Your task to perform on an android device: clear all cookies in the chrome app Image 0: 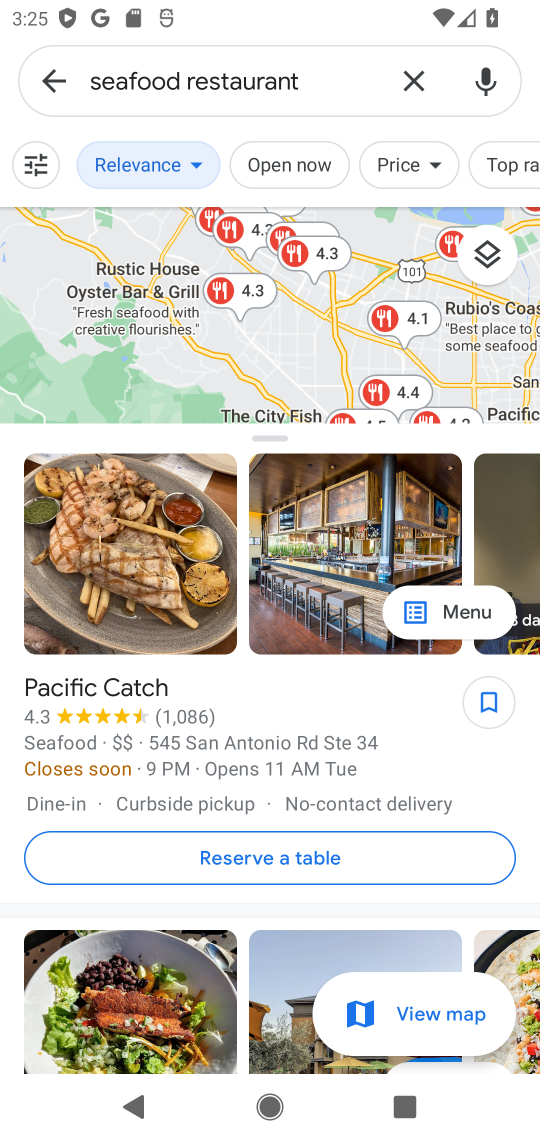
Step 0: press home button
Your task to perform on an android device: clear all cookies in the chrome app Image 1: 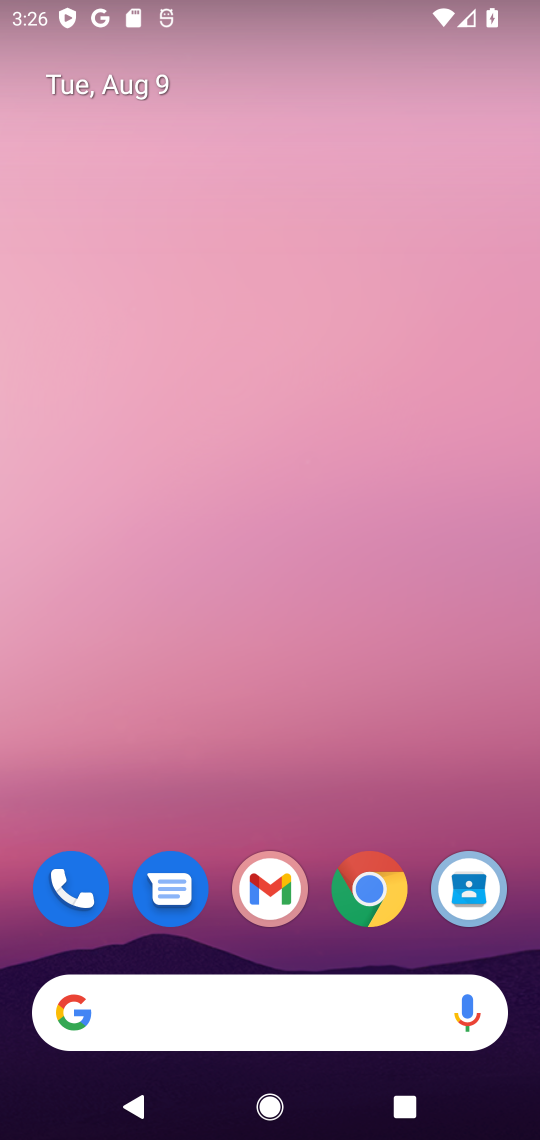
Step 1: click (373, 889)
Your task to perform on an android device: clear all cookies in the chrome app Image 2: 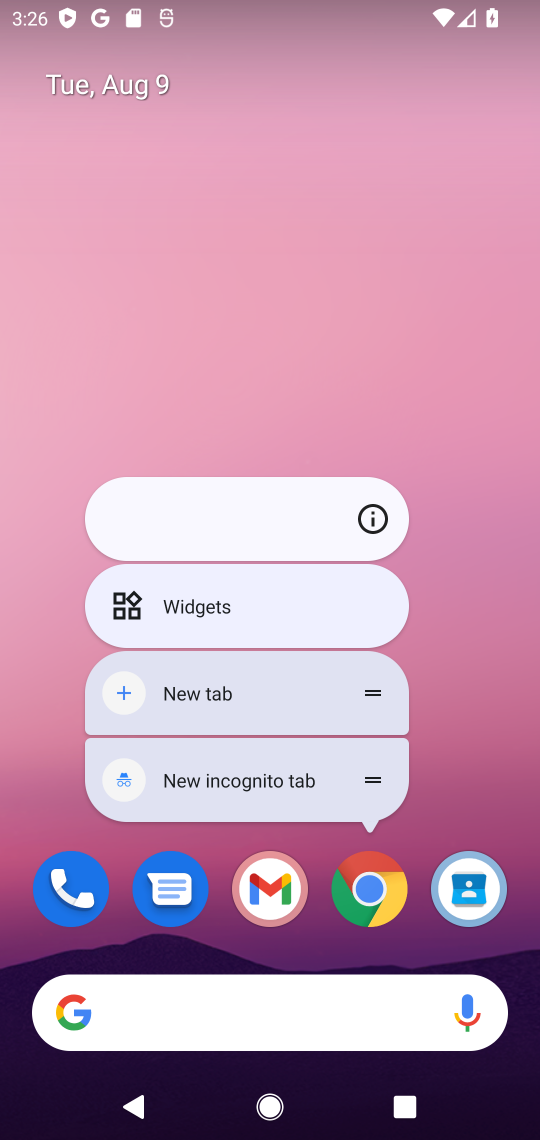
Step 2: click (373, 887)
Your task to perform on an android device: clear all cookies in the chrome app Image 3: 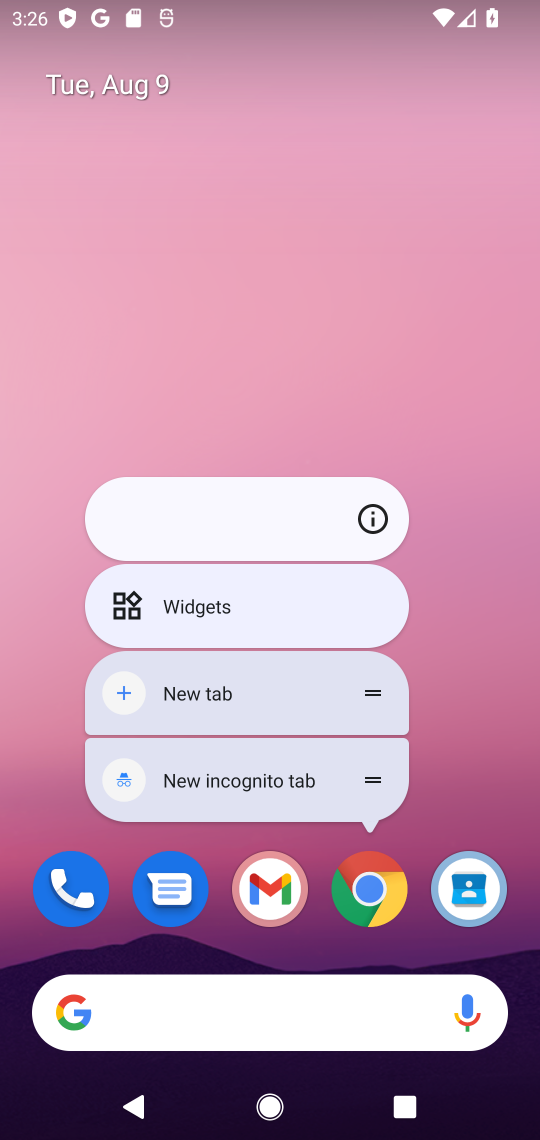
Step 3: click (373, 889)
Your task to perform on an android device: clear all cookies in the chrome app Image 4: 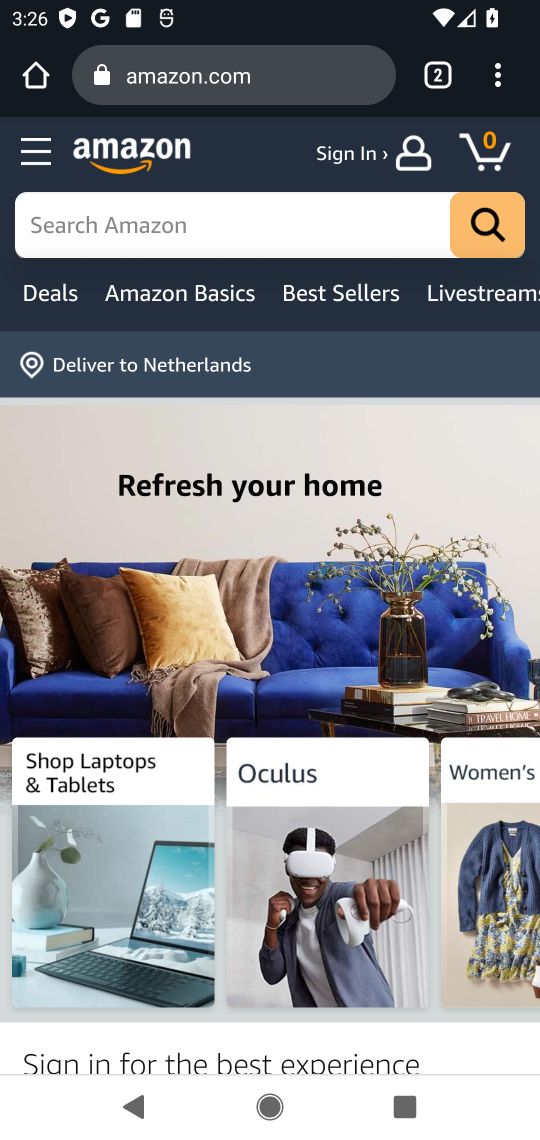
Step 4: click (501, 84)
Your task to perform on an android device: clear all cookies in the chrome app Image 5: 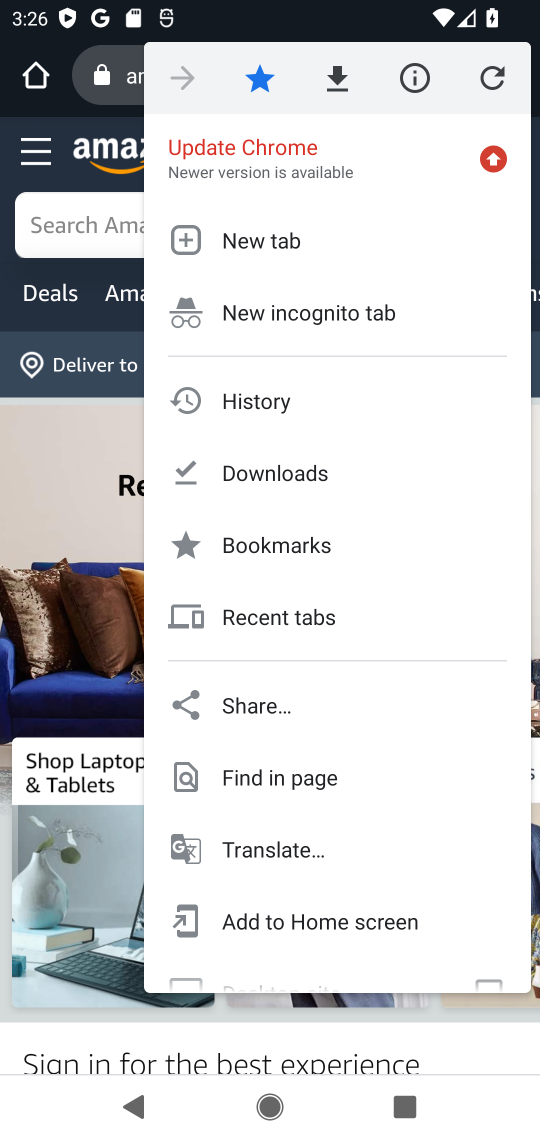
Step 5: drag from (374, 842) to (396, 39)
Your task to perform on an android device: clear all cookies in the chrome app Image 6: 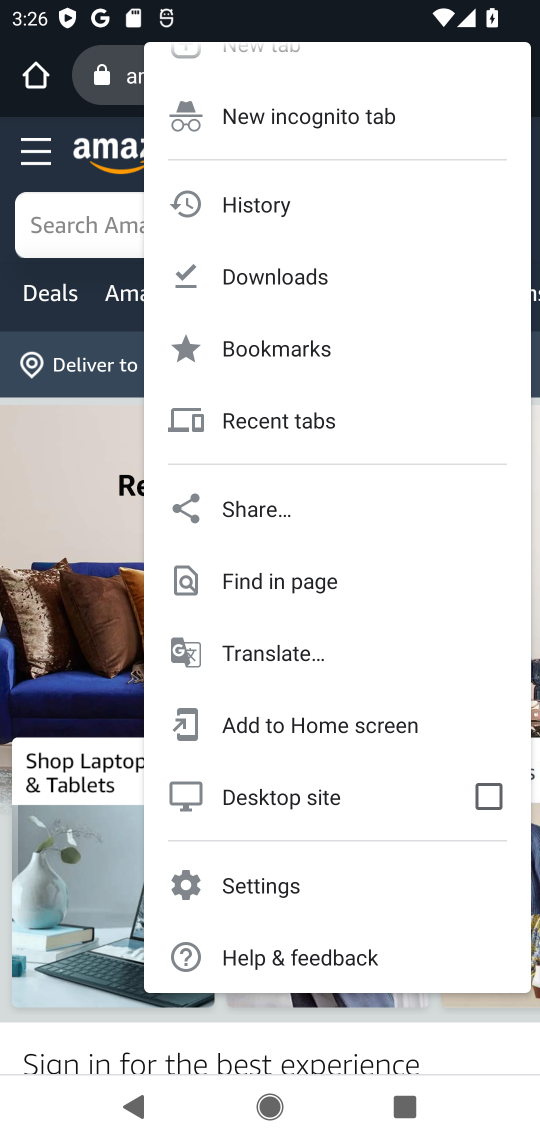
Step 6: click (287, 880)
Your task to perform on an android device: clear all cookies in the chrome app Image 7: 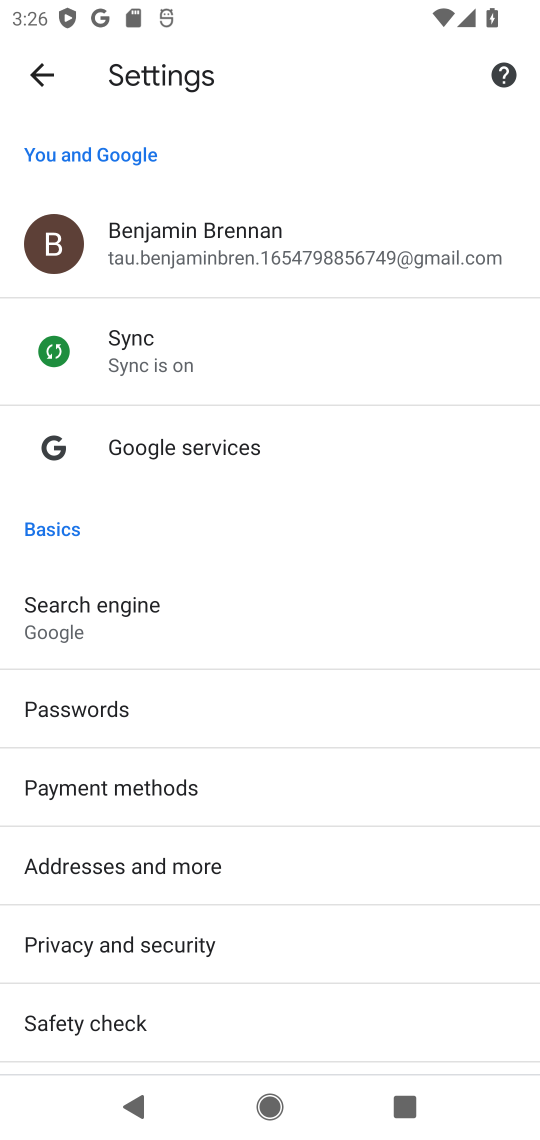
Step 7: click (224, 936)
Your task to perform on an android device: clear all cookies in the chrome app Image 8: 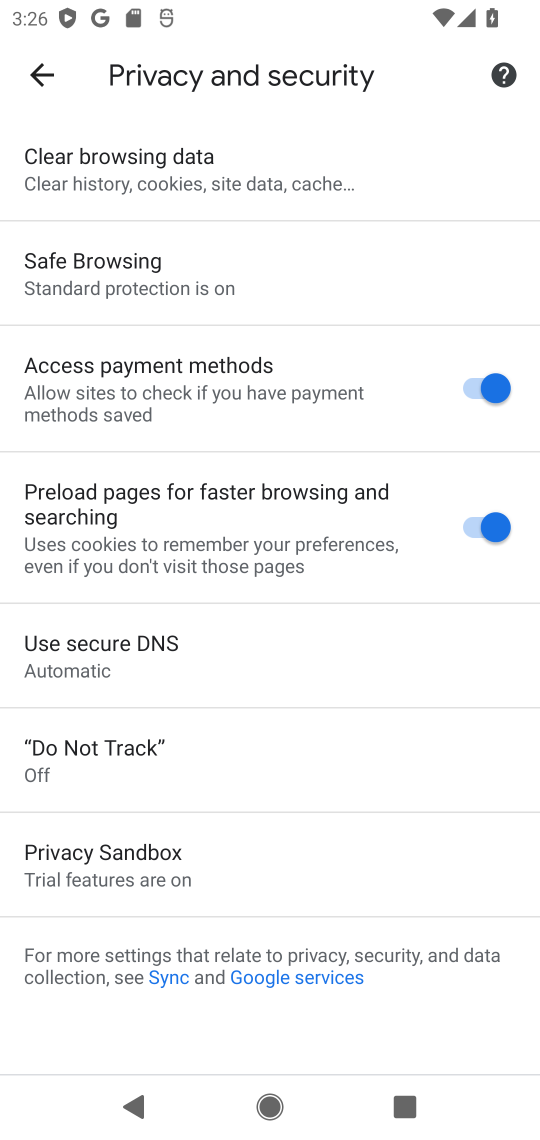
Step 8: click (254, 166)
Your task to perform on an android device: clear all cookies in the chrome app Image 9: 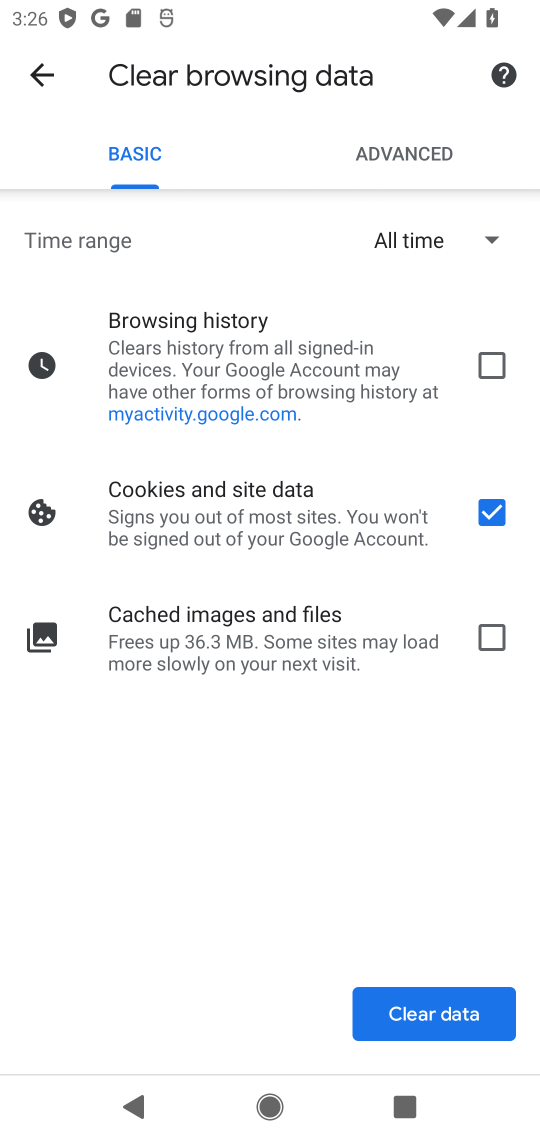
Step 9: click (479, 1016)
Your task to perform on an android device: clear all cookies in the chrome app Image 10: 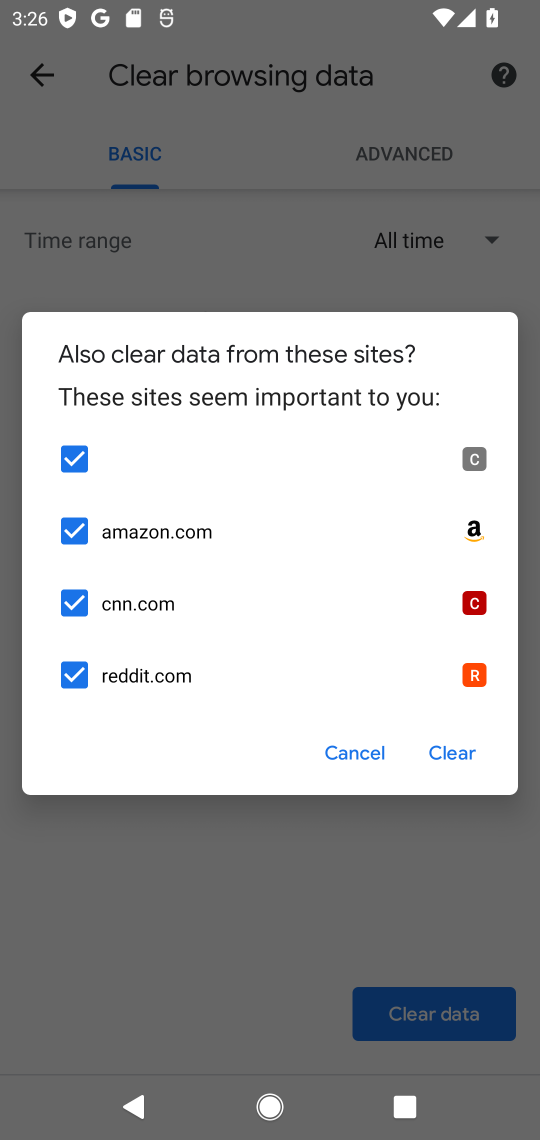
Step 10: click (469, 751)
Your task to perform on an android device: clear all cookies in the chrome app Image 11: 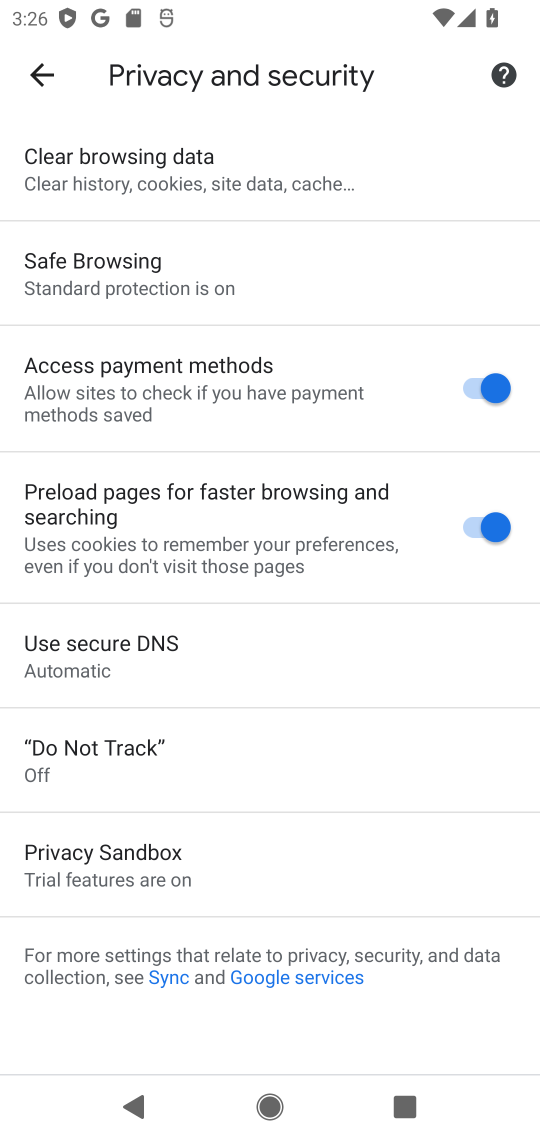
Step 11: task complete